Your task to perform on an android device: toggle wifi Image 0: 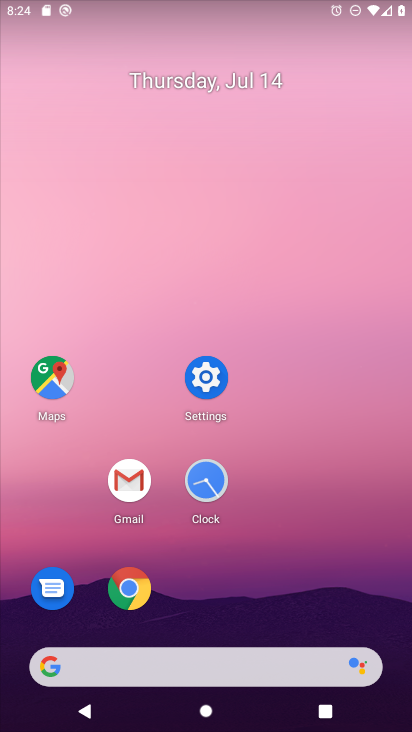
Step 0: click (211, 373)
Your task to perform on an android device: toggle wifi Image 1: 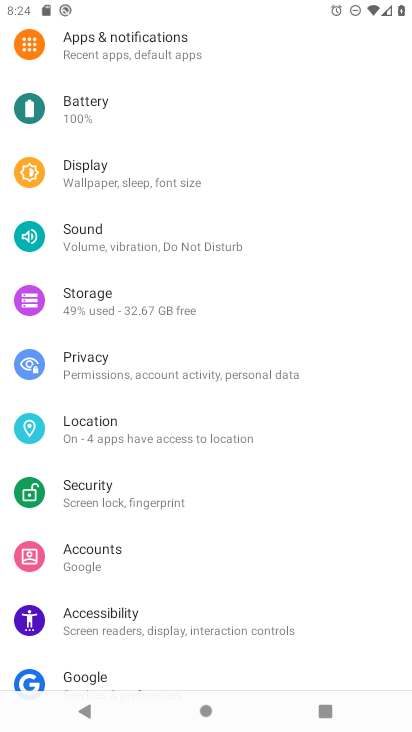
Step 1: drag from (294, 118) to (292, 564)
Your task to perform on an android device: toggle wifi Image 2: 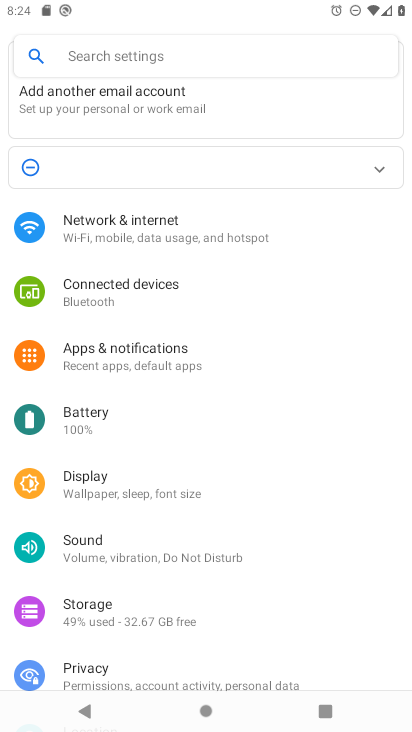
Step 2: click (127, 226)
Your task to perform on an android device: toggle wifi Image 3: 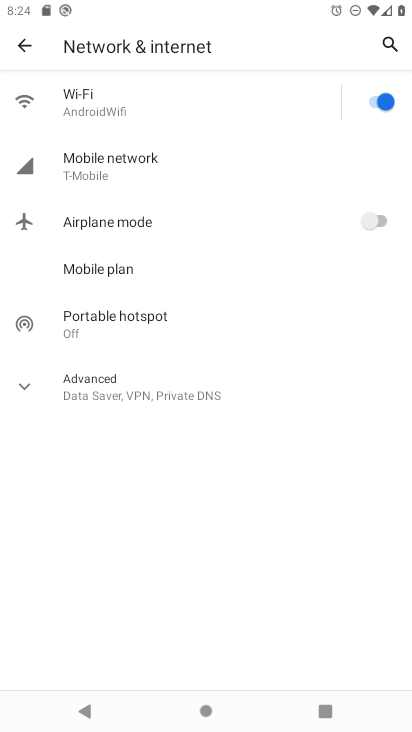
Step 3: click (375, 103)
Your task to perform on an android device: toggle wifi Image 4: 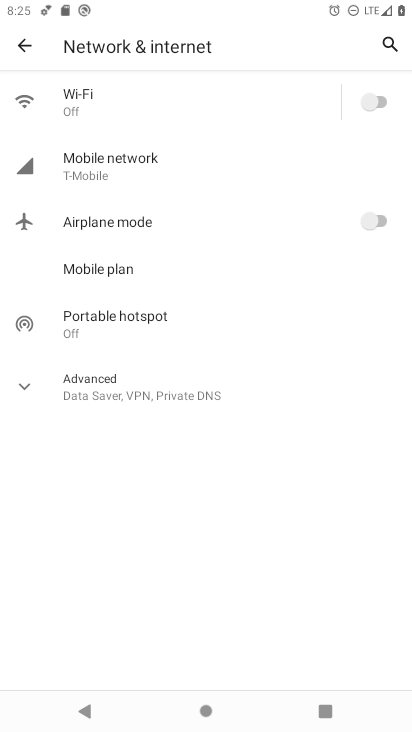
Step 4: task complete